Your task to perform on an android device: change keyboard looks Image 0: 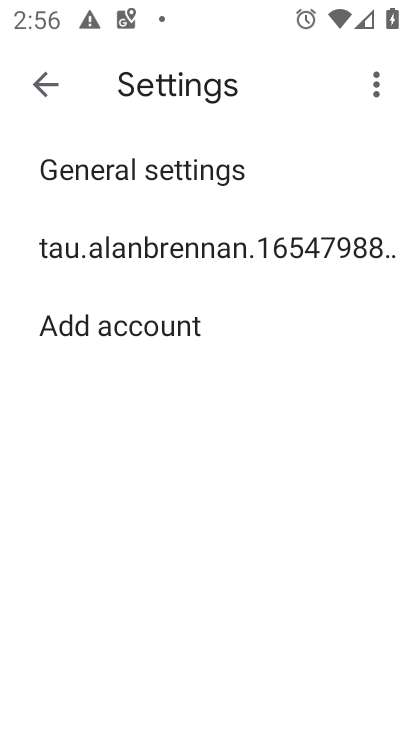
Step 0: press home button
Your task to perform on an android device: change keyboard looks Image 1: 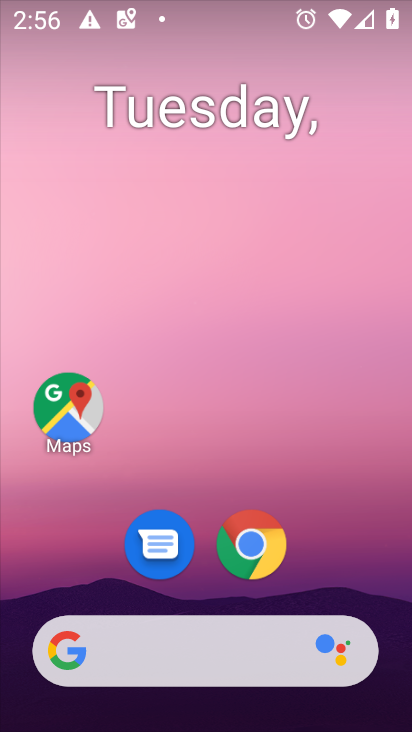
Step 1: drag from (359, 544) to (320, 32)
Your task to perform on an android device: change keyboard looks Image 2: 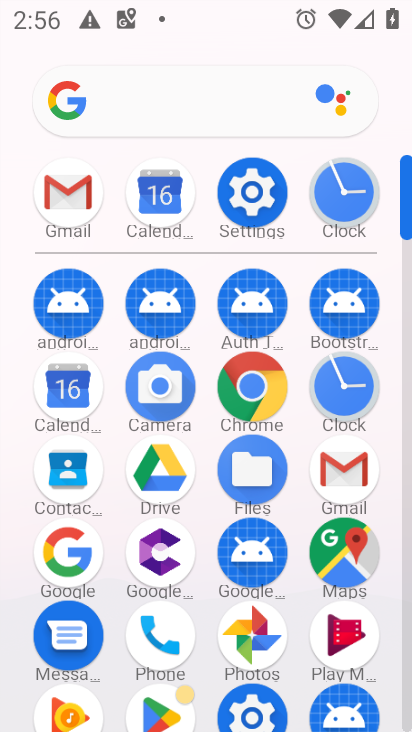
Step 2: click (241, 718)
Your task to perform on an android device: change keyboard looks Image 3: 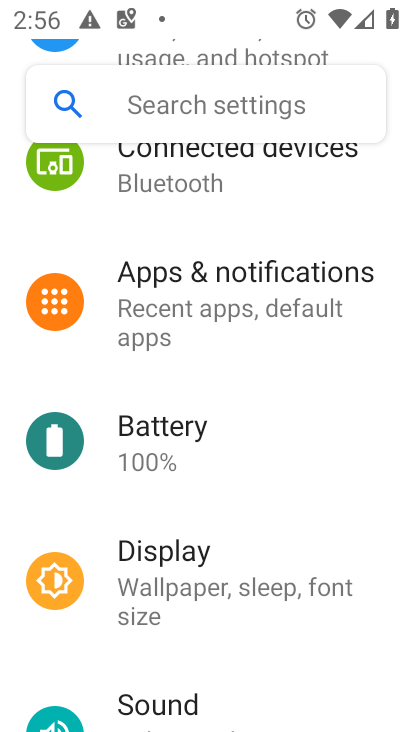
Step 3: drag from (245, 531) to (268, 188)
Your task to perform on an android device: change keyboard looks Image 4: 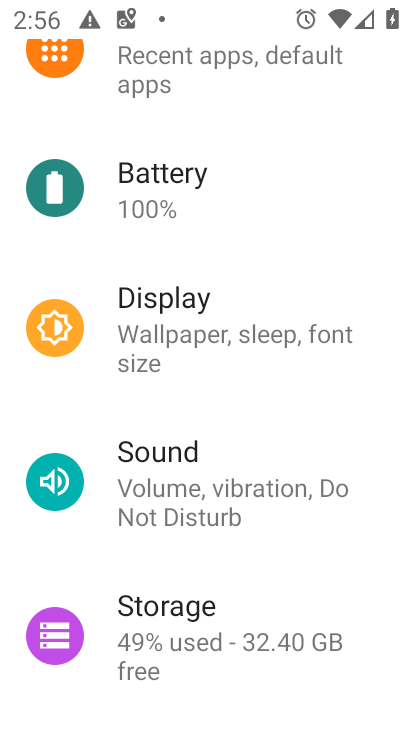
Step 4: drag from (269, 474) to (291, 135)
Your task to perform on an android device: change keyboard looks Image 5: 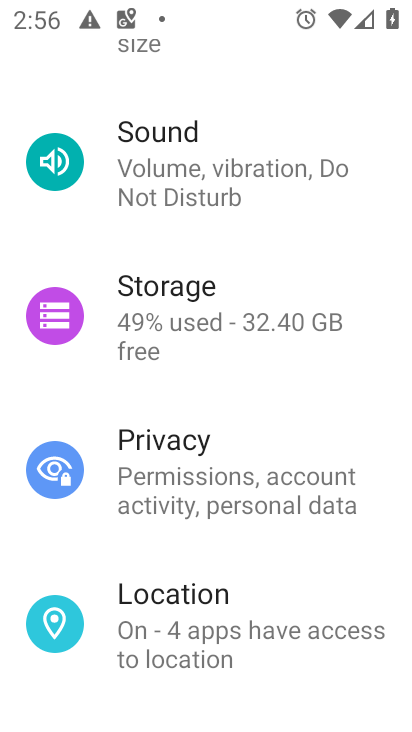
Step 5: drag from (293, 134) to (287, 466)
Your task to perform on an android device: change keyboard looks Image 6: 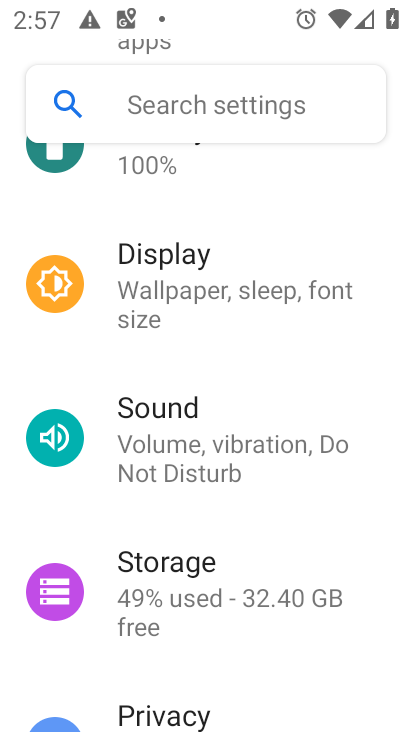
Step 6: drag from (286, 598) to (298, 114)
Your task to perform on an android device: change keyboard looks Image 7: 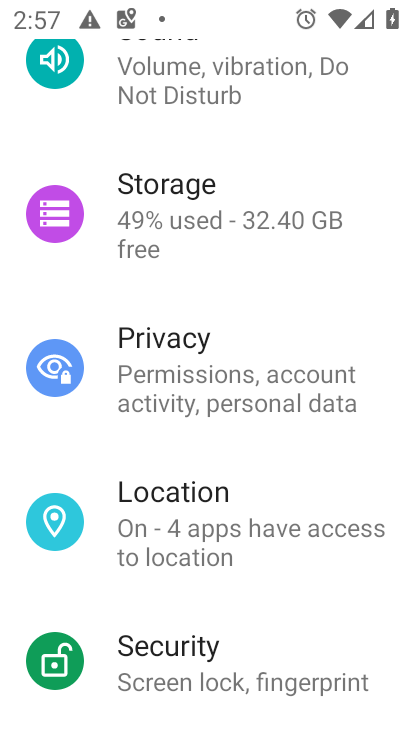
Step 7: drag from (285, 616) to (314, 31)
Your task to perform on an android device: change keyboard looks Image 8: 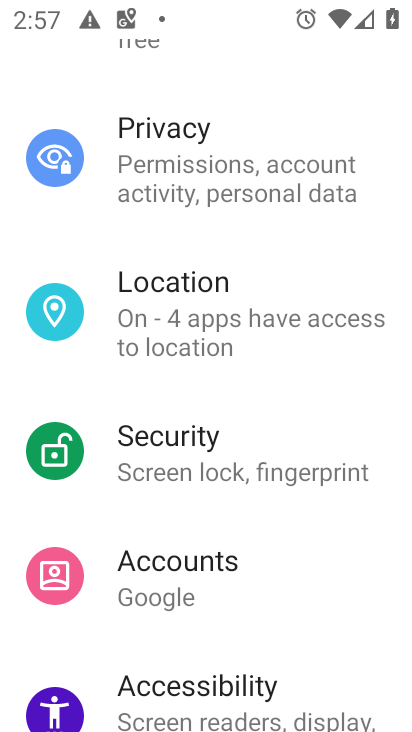
Step 8: drag from (256, 507) to (315, 14)
Your task to perform on an android device: change keyboard looks Image 9: 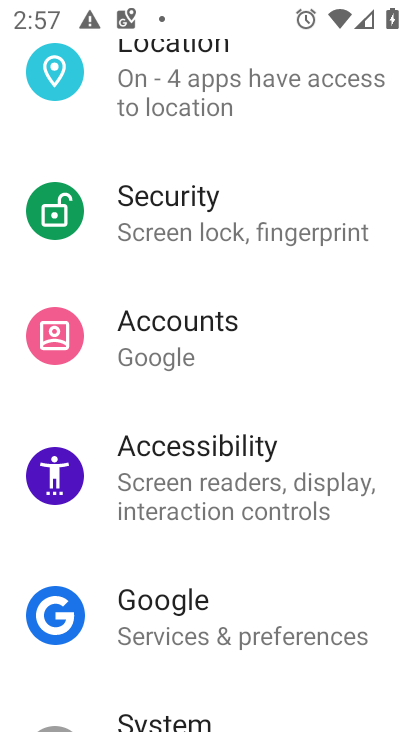
Step 9: drag from (251, 658) to (301, 214)
Your task to perform on an android device: change keyboard looks Image 10: 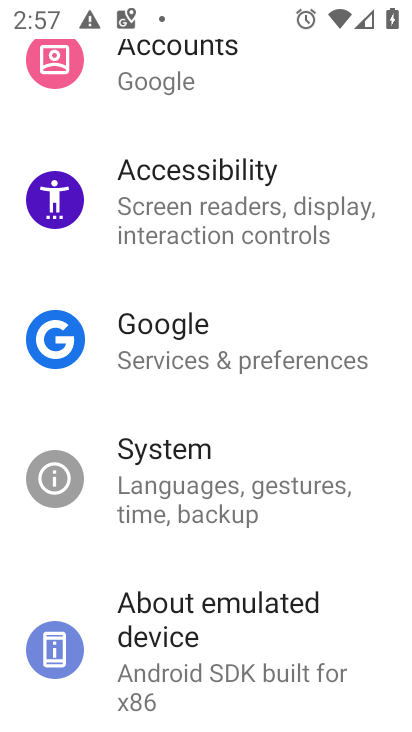
Step 10: click (258, 496)
Your task to perform on an android device: change keyboard looks Image 11: 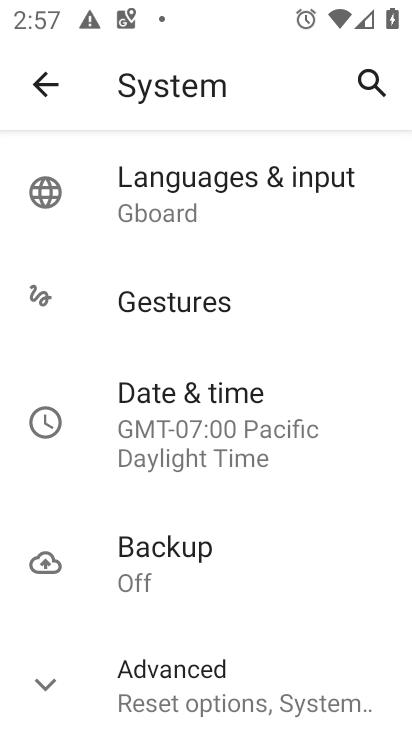
Step 11: click (231, 181)
Your task to perform on an android device: change keyboard looks Image 12: 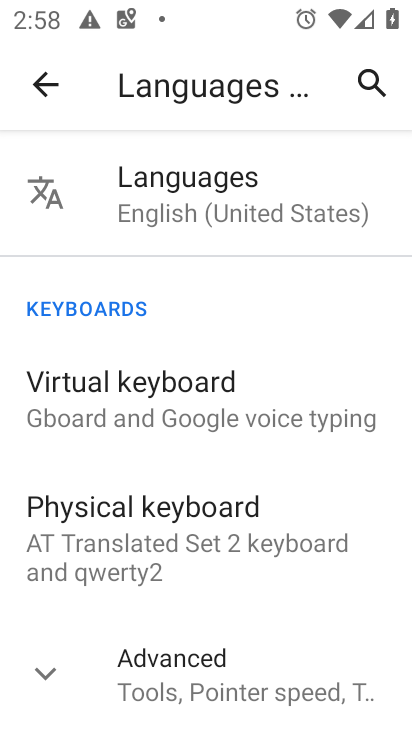
Step 12: click (212, 407)
Your task to perform on an android device: change keyboard looks Image 13: 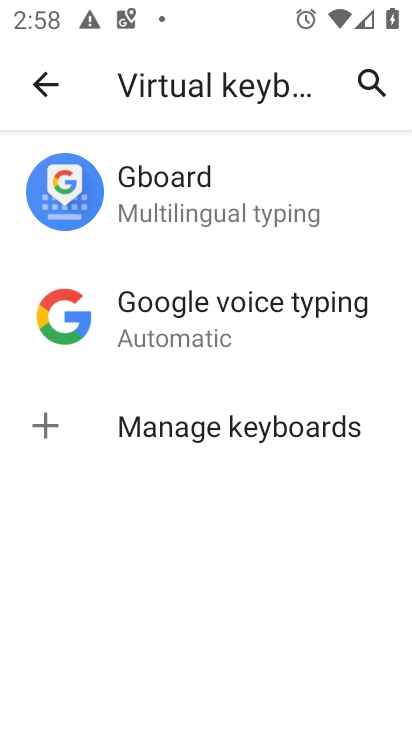
Step 13: click (194, 229)
Your task to perform on an android device: change keyboard looks Image 14: 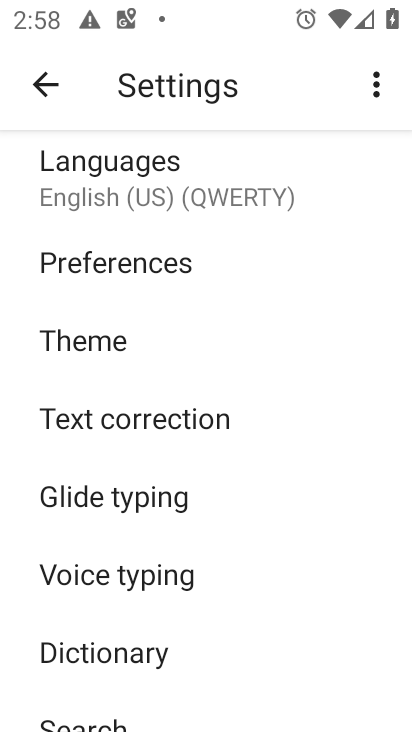
Step 14: click (117, 328)
Your task to perform on an android device: change keyboard looks Image 15: 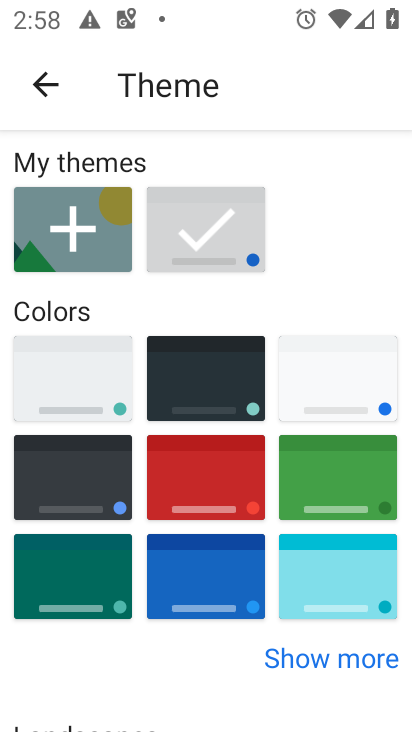
Step 15: click (102, 362)
Your task to perform on an android device: change keyboard looks Image 16: 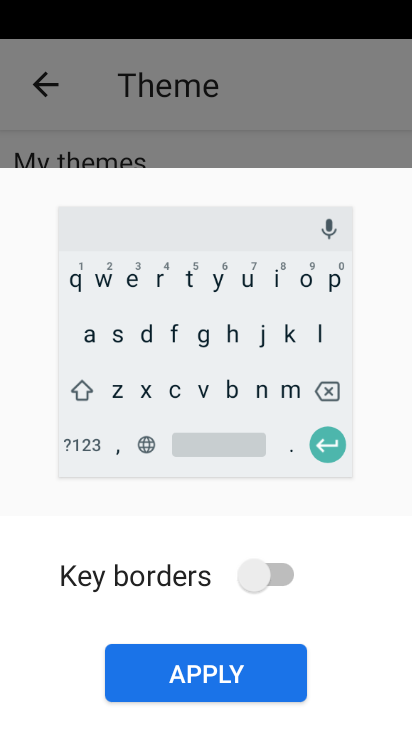
Step 16: click (250, 663)
Your task to perform on an android device: change keyboard looks Image 17: 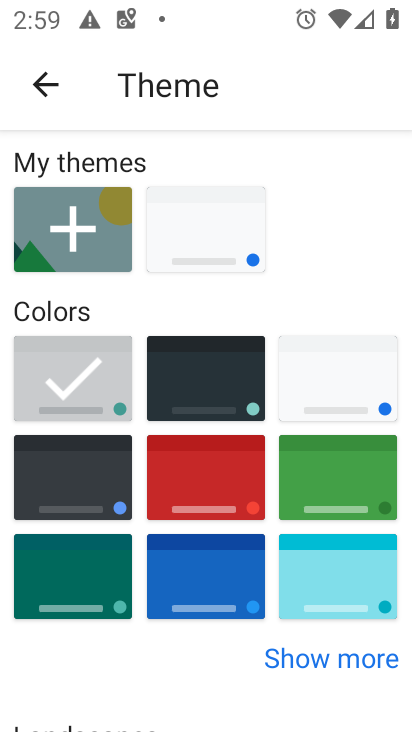
Step 17: task complete